Your task to perform on an android device: turn smart compose on in the gmail app Image 0: 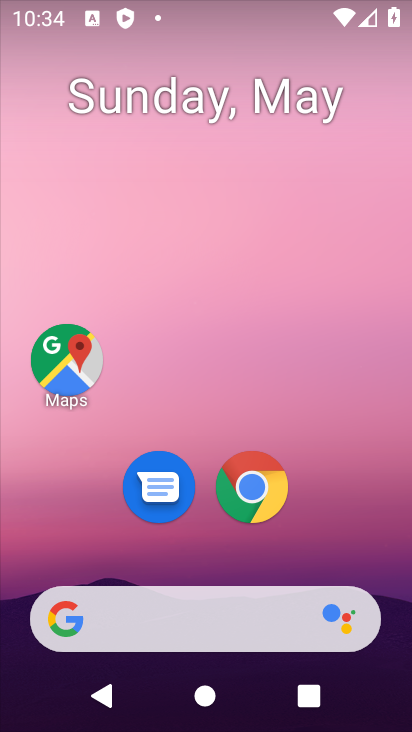
Step 0: drag from (234, 655) to (288, 175)
Your task to perform on an android device: turn smart compose on in the gmail app Image 1: 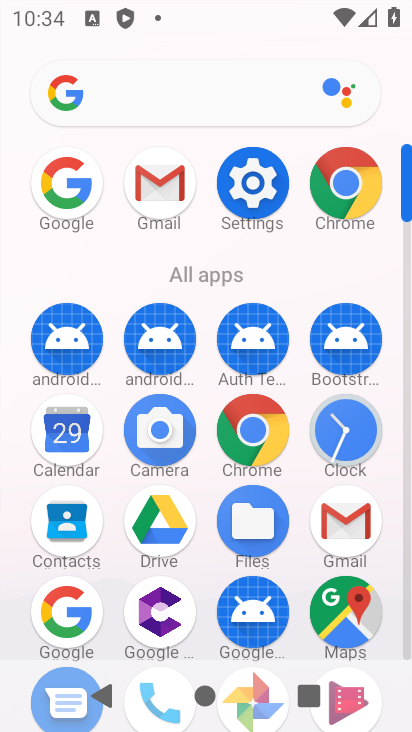
Step 1: click (172, 192)
Your task to perform on an android device: turn smart compose on in the gmail app Image 2: 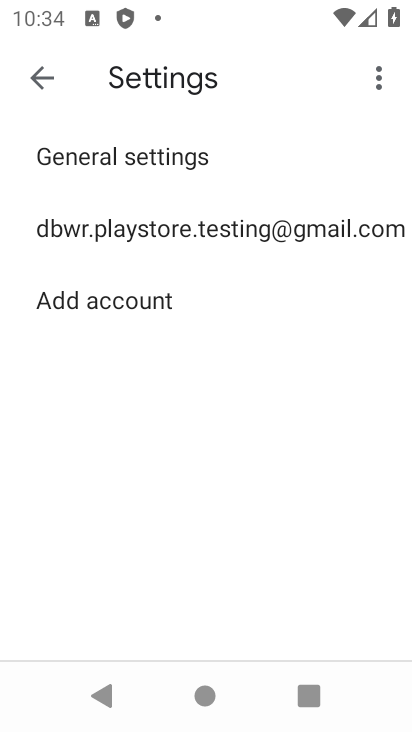
Step 2: click (131, 249)
Your task to perform on an android device: turn smart compose on in the gmail app Image 3: 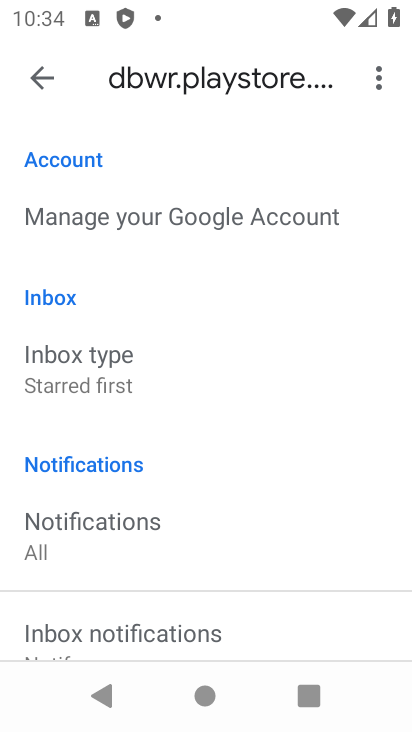
Step 3: task complete